Your task to perform on an android device: open app "Cash App" (install if not already installed) Image 0: 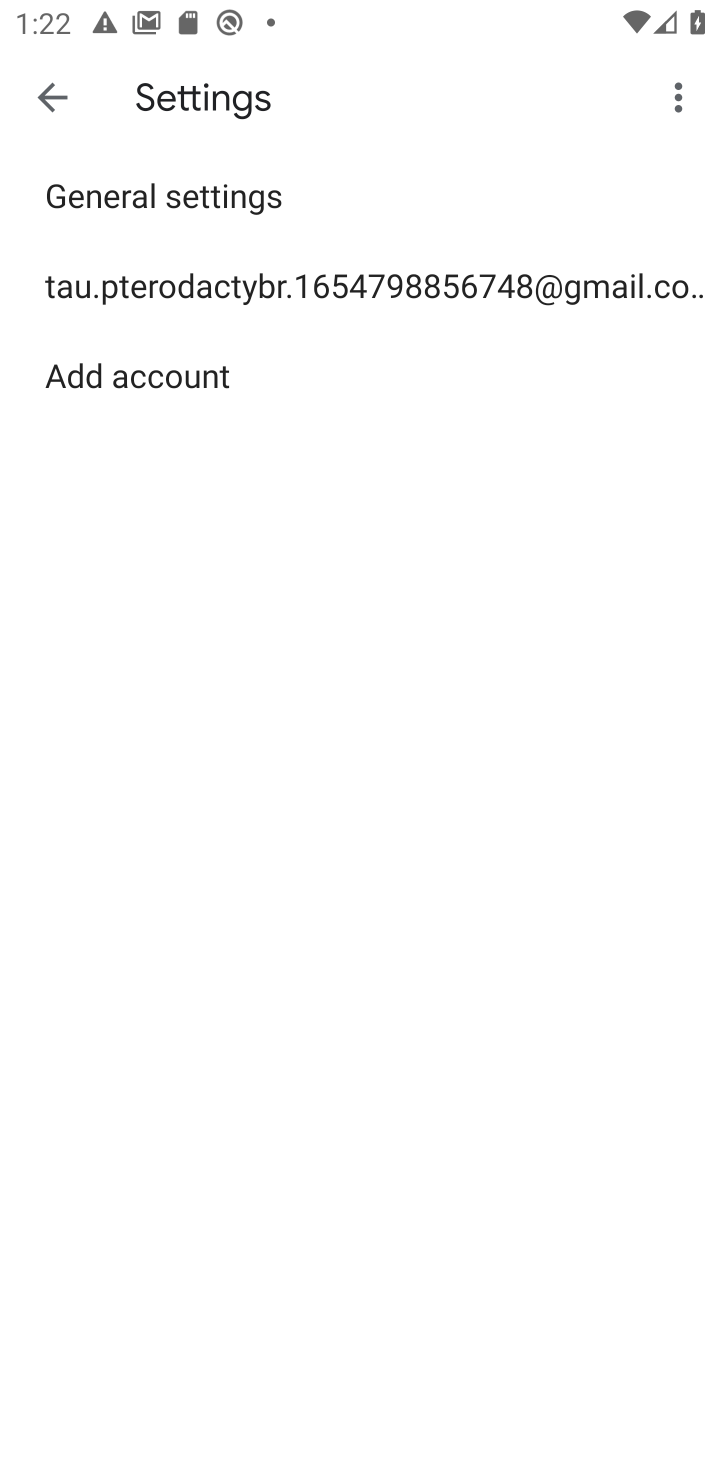
Step 0: press home button
Your task to perform on an android device: open app "Cash App" (install if not already installed) Image 1: 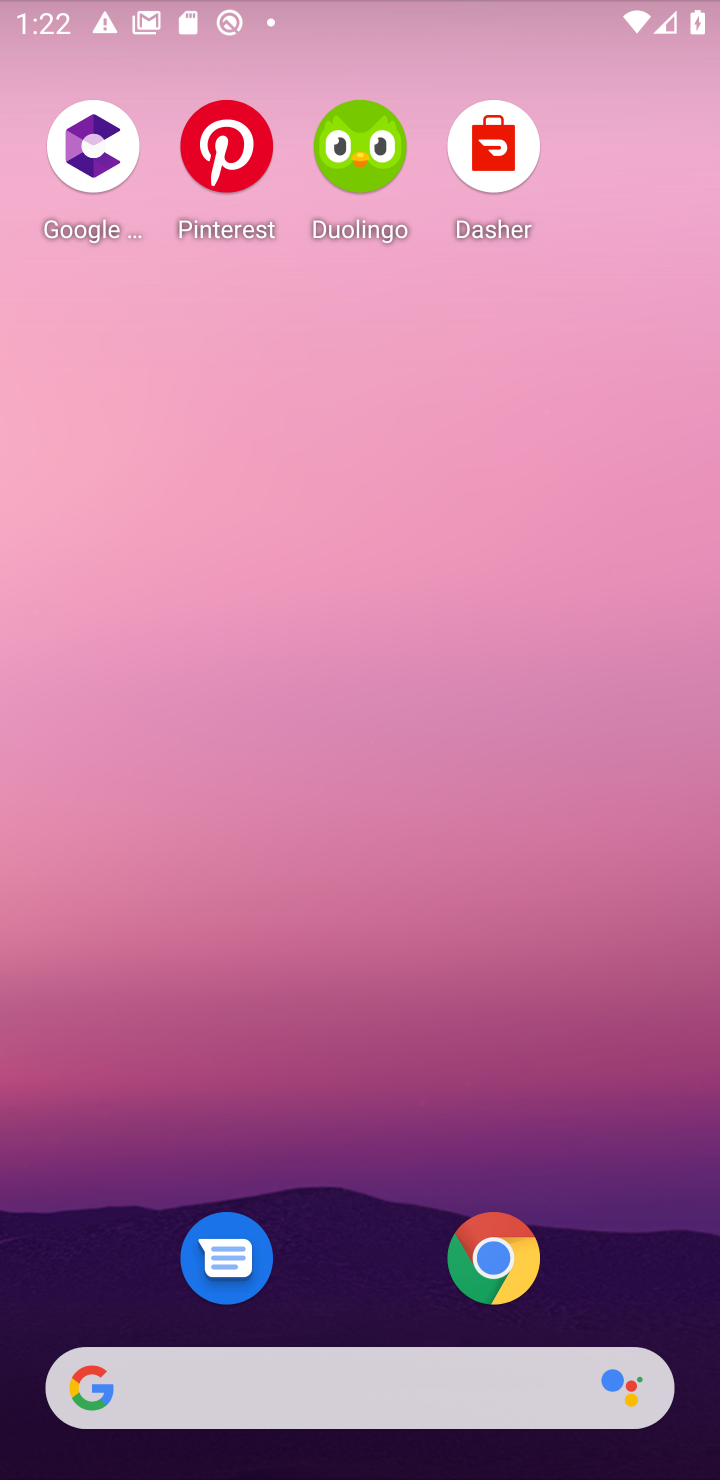
Step 1: drag from (339, 953) to (421, 72)
Your task to perform on an android device: open app "Cash App" (install if not already installed) Image 2: 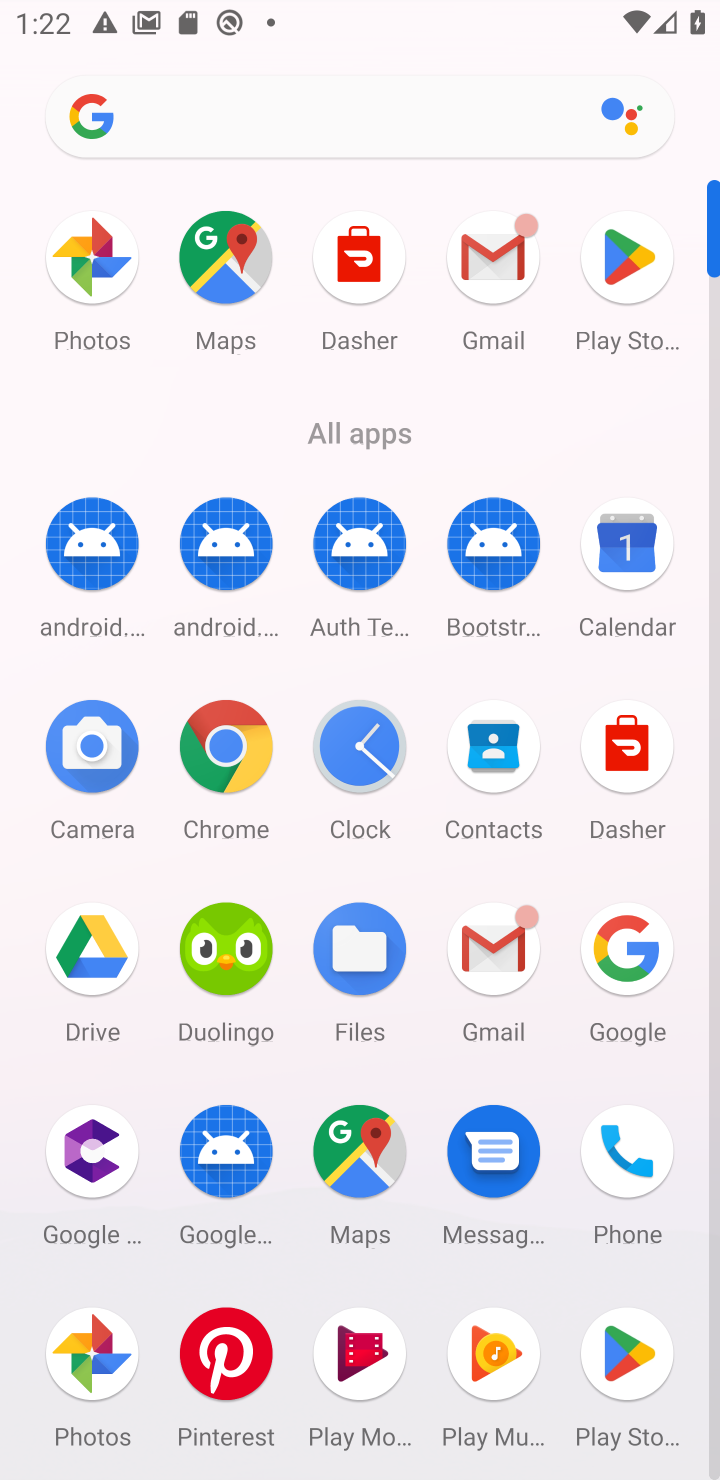
Step 2: click (638, 256)
Your task to perform on an android device: open app "Cash App" (install if not already installed) Image 3: 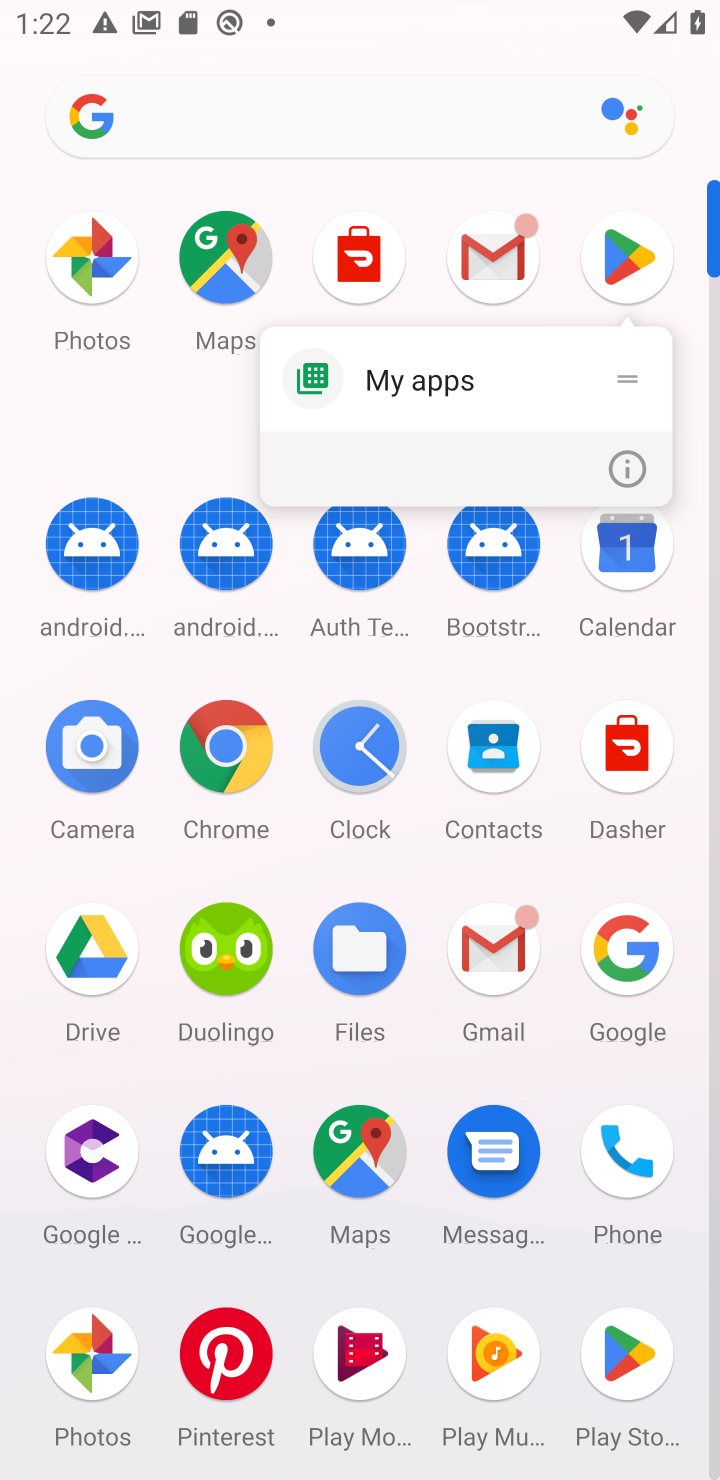
Step 3: click (630, 252)
Your task to perform on an android device: open app "Cash App" (install if not already installed) Image 4: 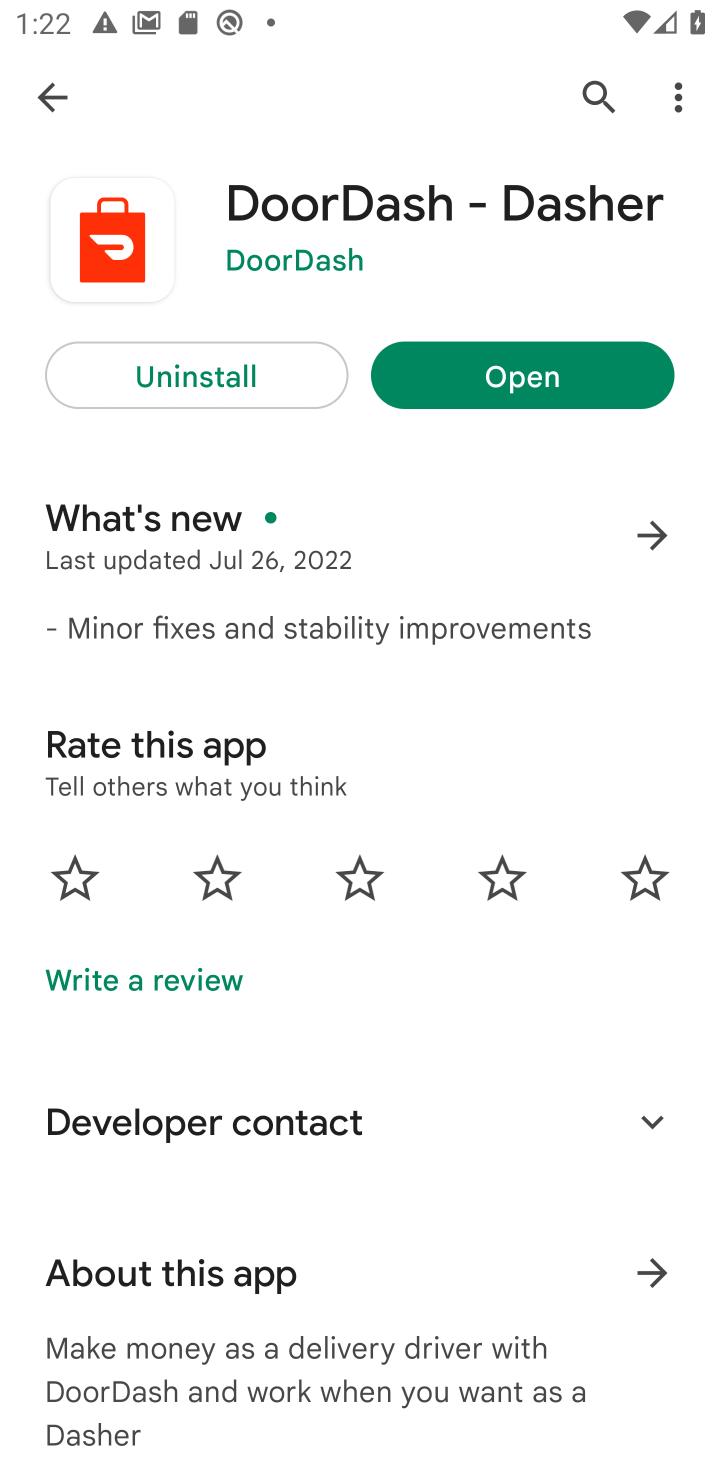
Step 4: click (635, 263)
Your task to perform on an android device: open app "Cash App" (install if not already installed) Image 5: 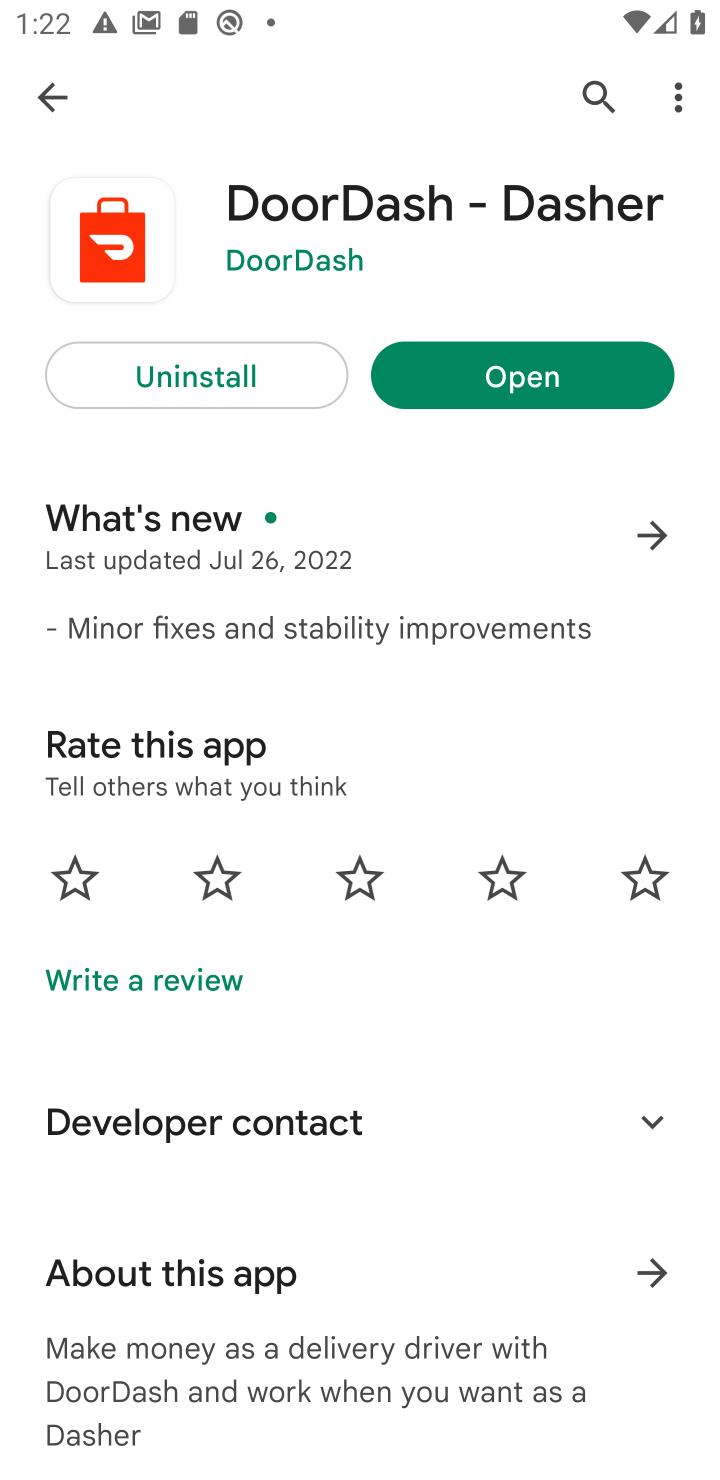
Step 5: click (597, 67)
Your task to perform on an android device: open app "Cash App" (install if not already installed) Image 6: 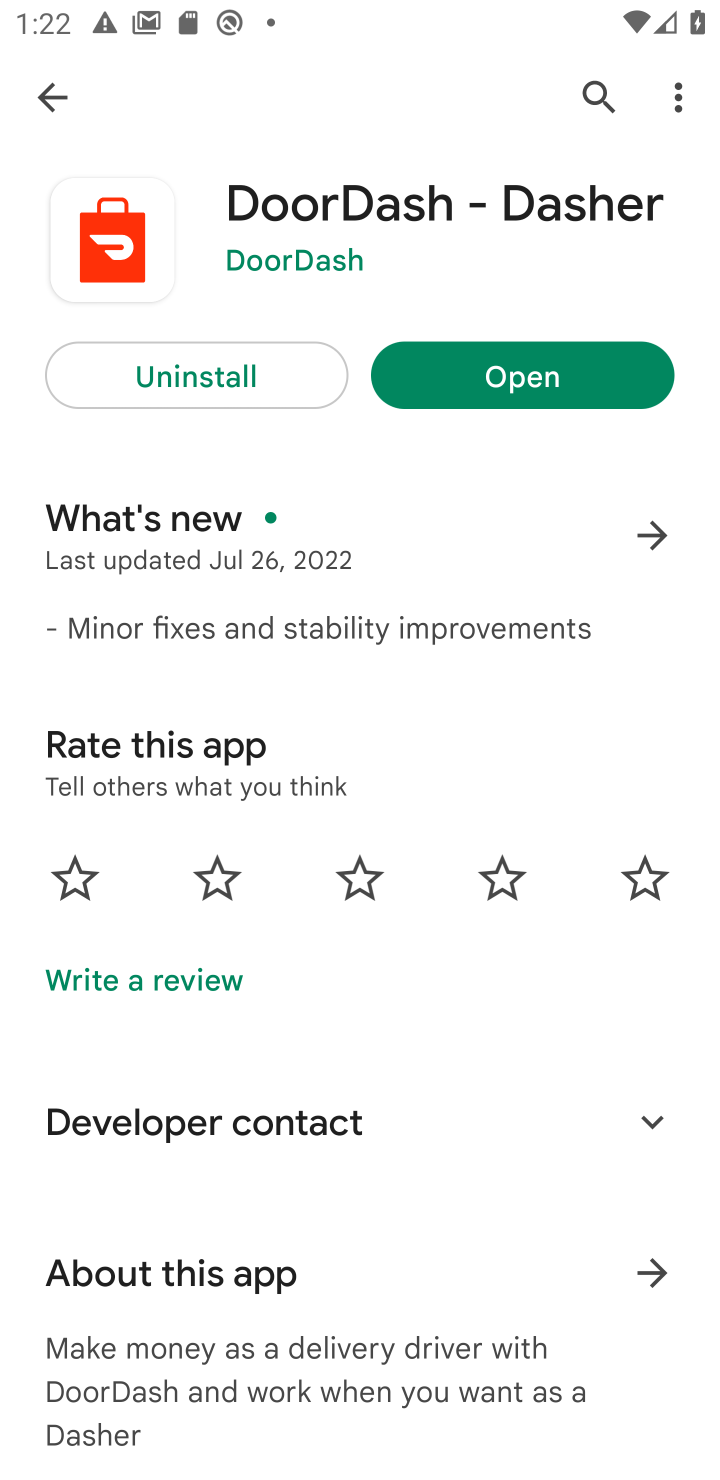
Step 6: click (597, 93)
Your task to perform on an android device: open app "Cash App" (install if not already installed) Image 7: 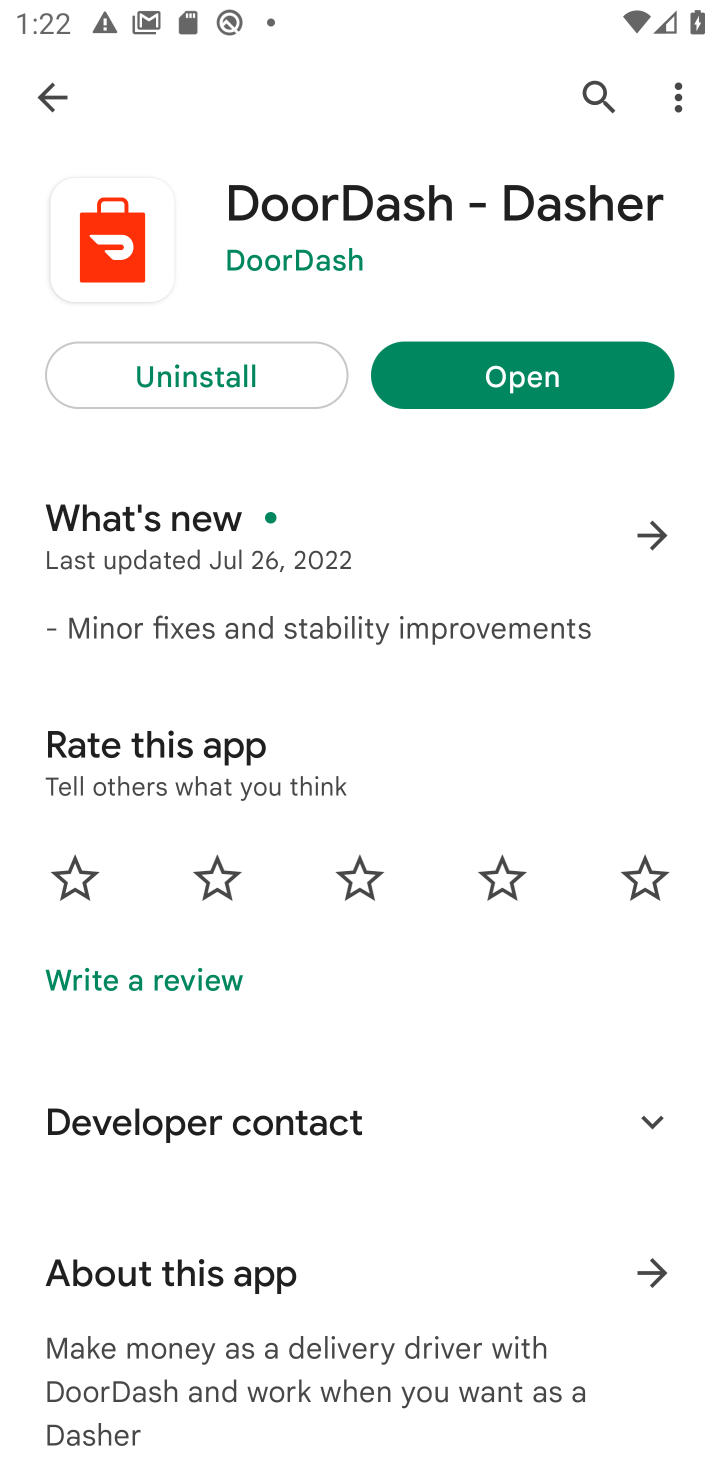
Step 7: click (598, 96)
Your task to perform on an android device: open app "Cash App" (install if not already installed) Image 8: 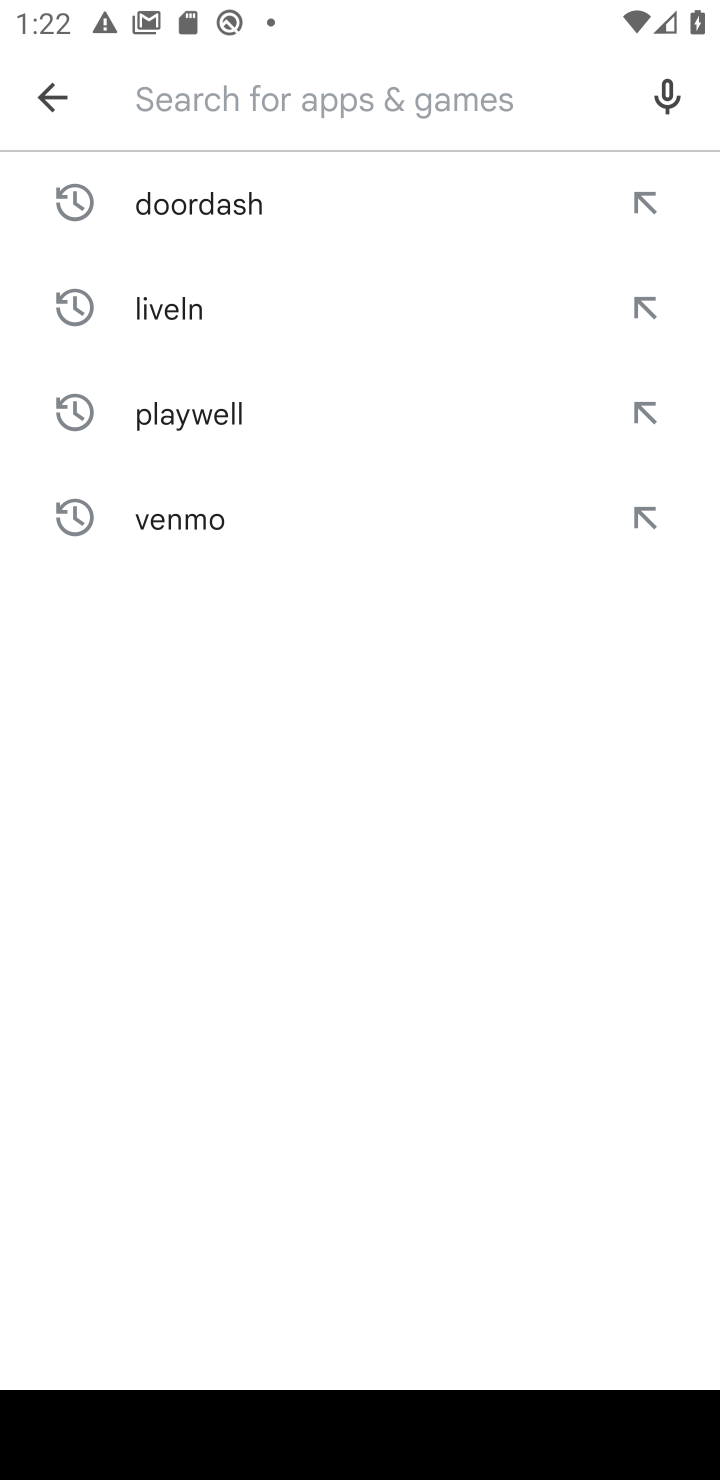
Step 8: click (351, 87)
Your task to perform on an android device: open app "Cash App" (install if not already installed) Image 9: 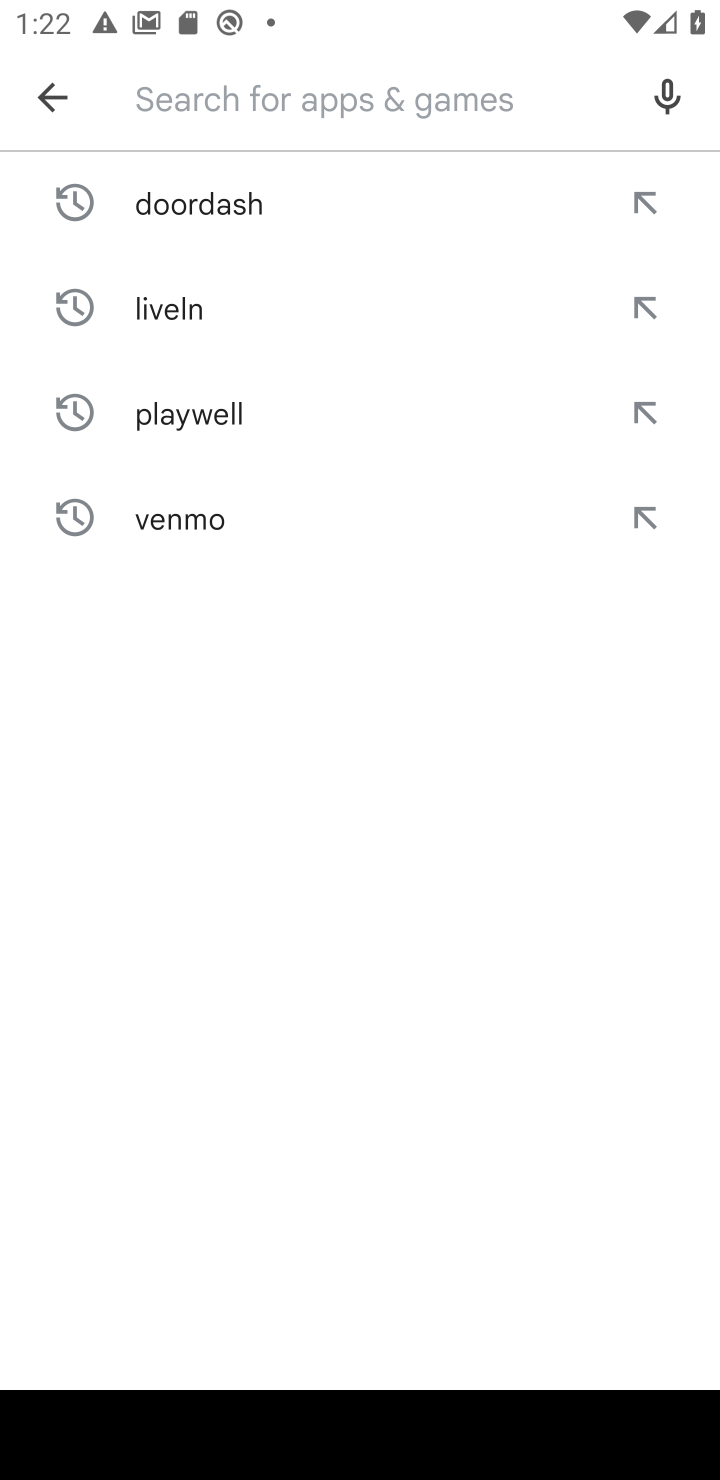
Step 9: type "cash app"
Your task to perform on an android device: open app "Cash App" (install if not already installed) Image 10: 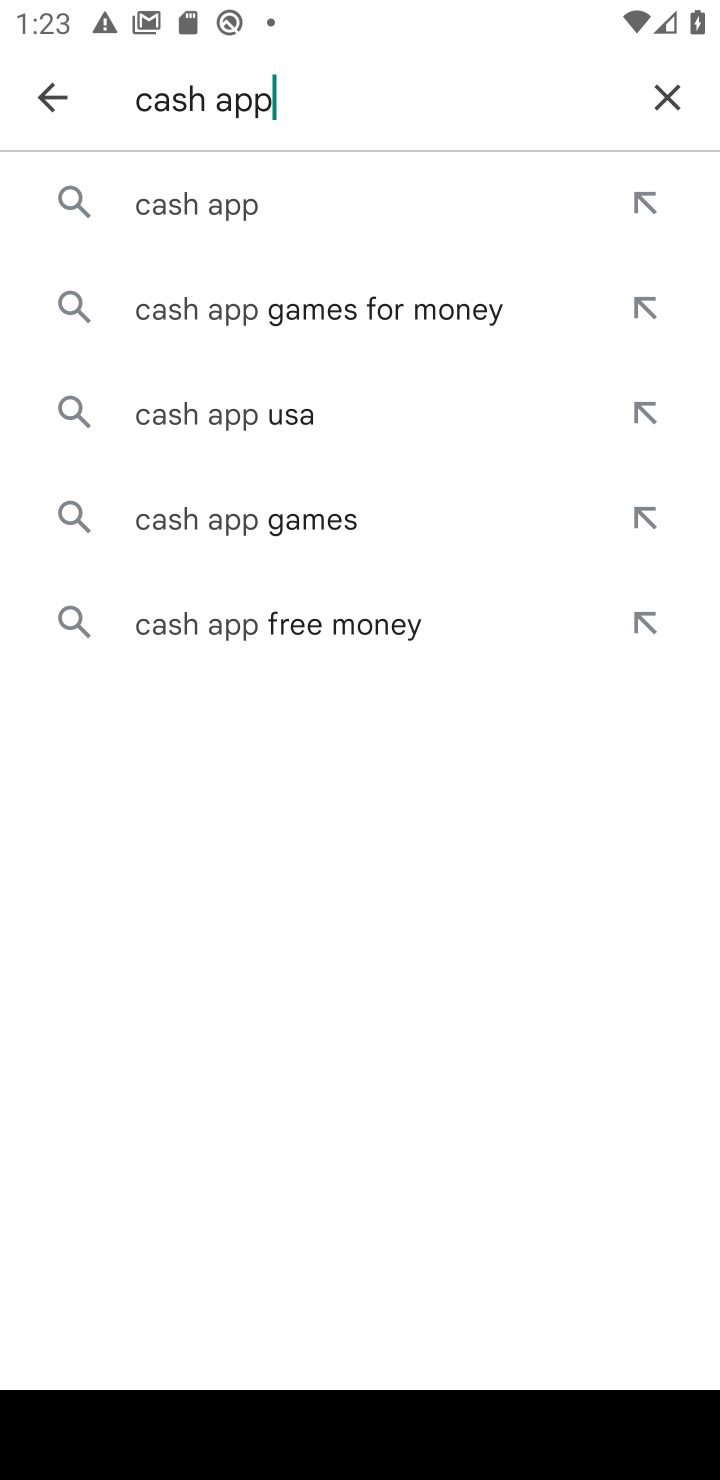
Step 10: click (172, 171)
Your task to perform on an android device: open app "Cash App" (install if not already installed) Image 11: 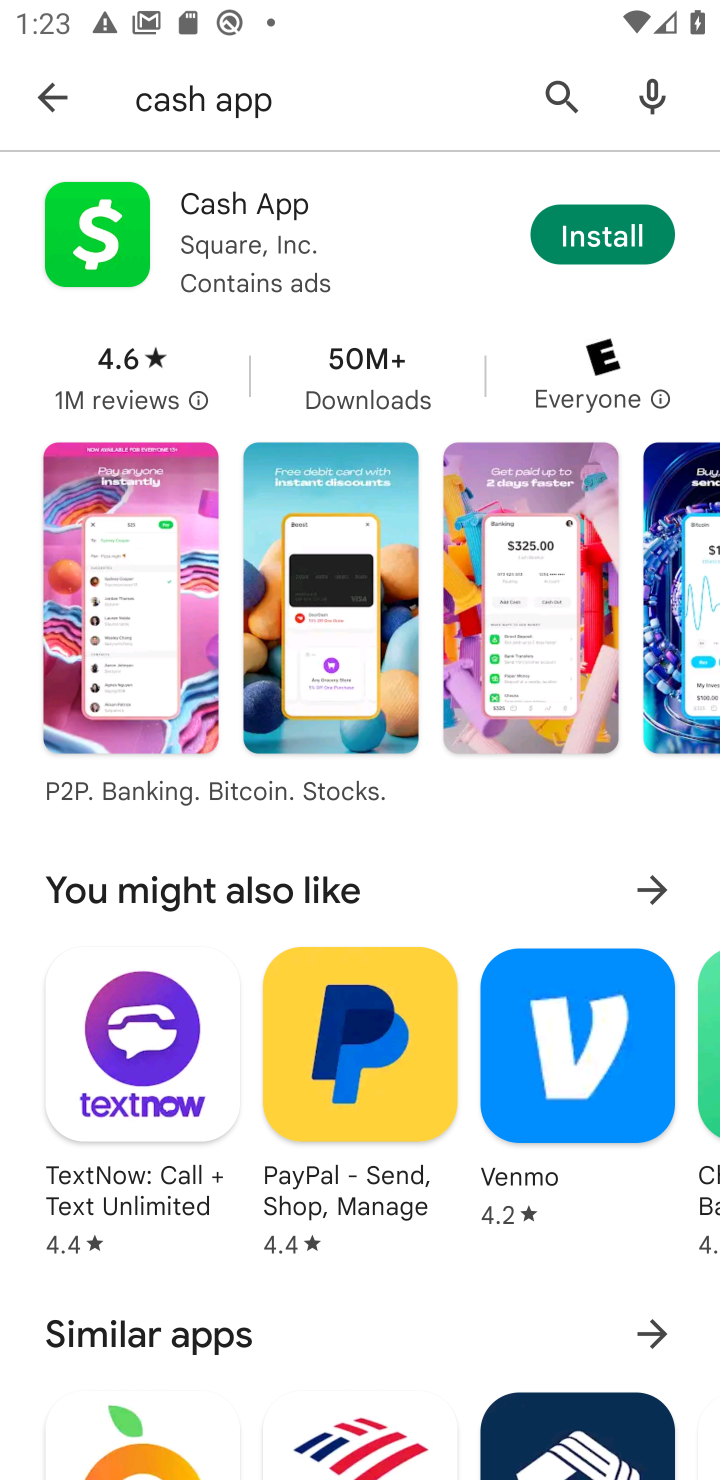
Step 11: click (634, 249)
Your task to perform on an android device: open app "Cash App" (install if not already installed) Image 12: 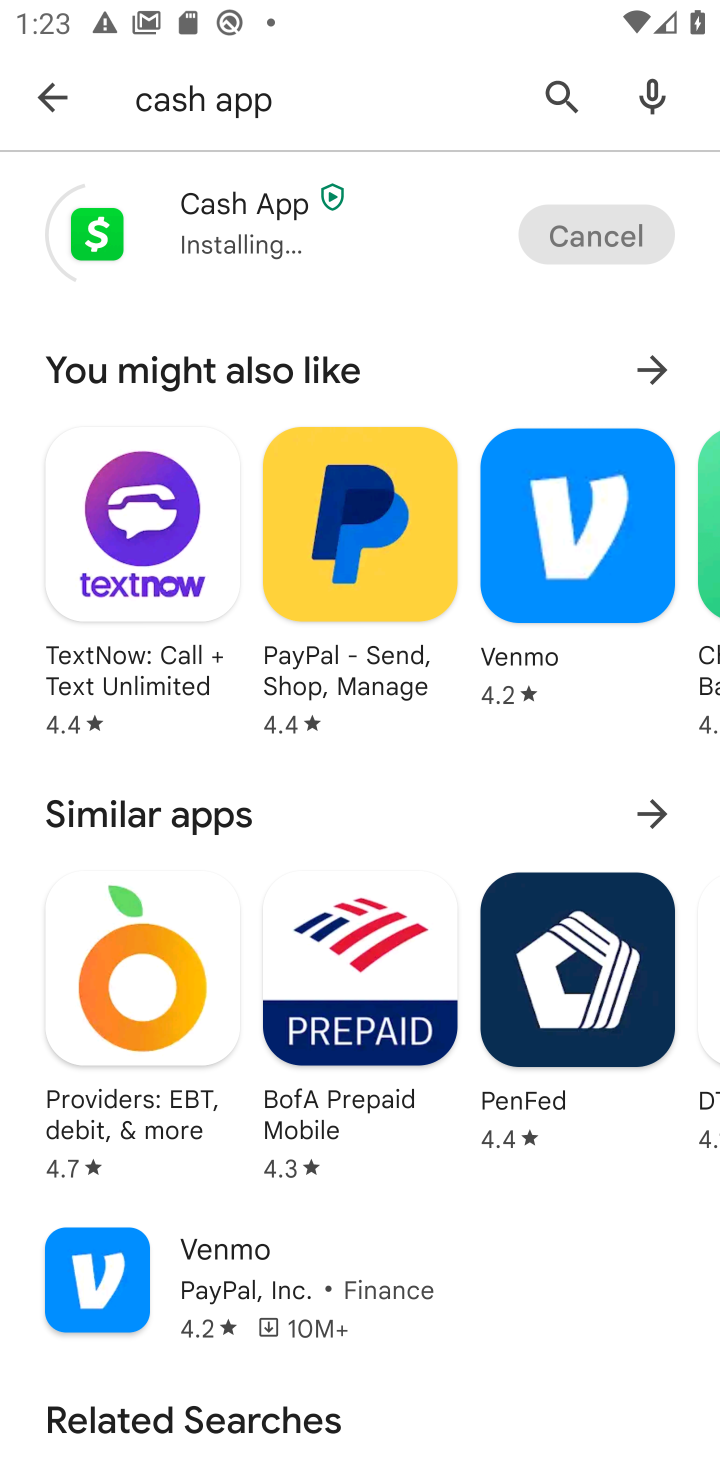
Step 12: click (29, 99)
Your task to perform on an android device: open app "Cash App" (install if not already installed) Image 13: 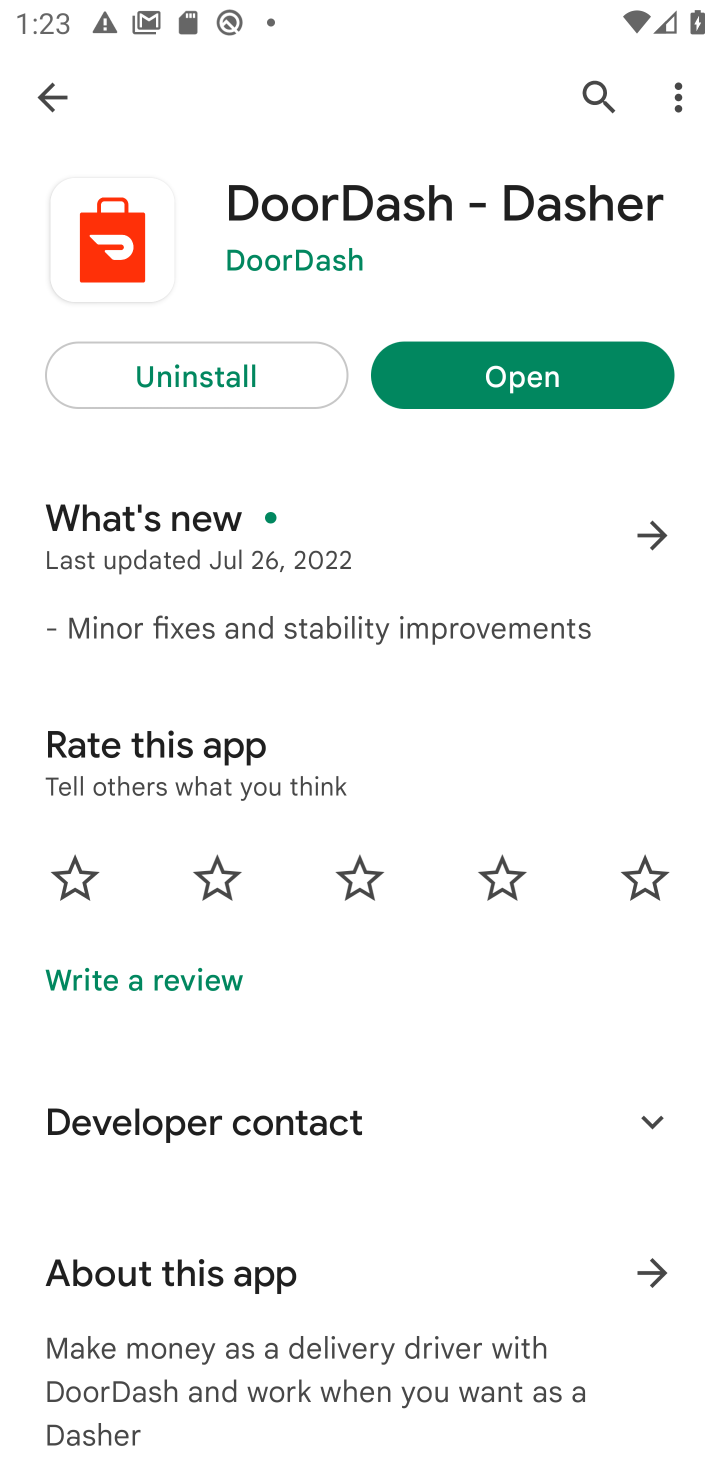
Step 13: click (584, 106)
Your task to perform on an android device: open app "Cash App" (install if not already installed) Image 14: 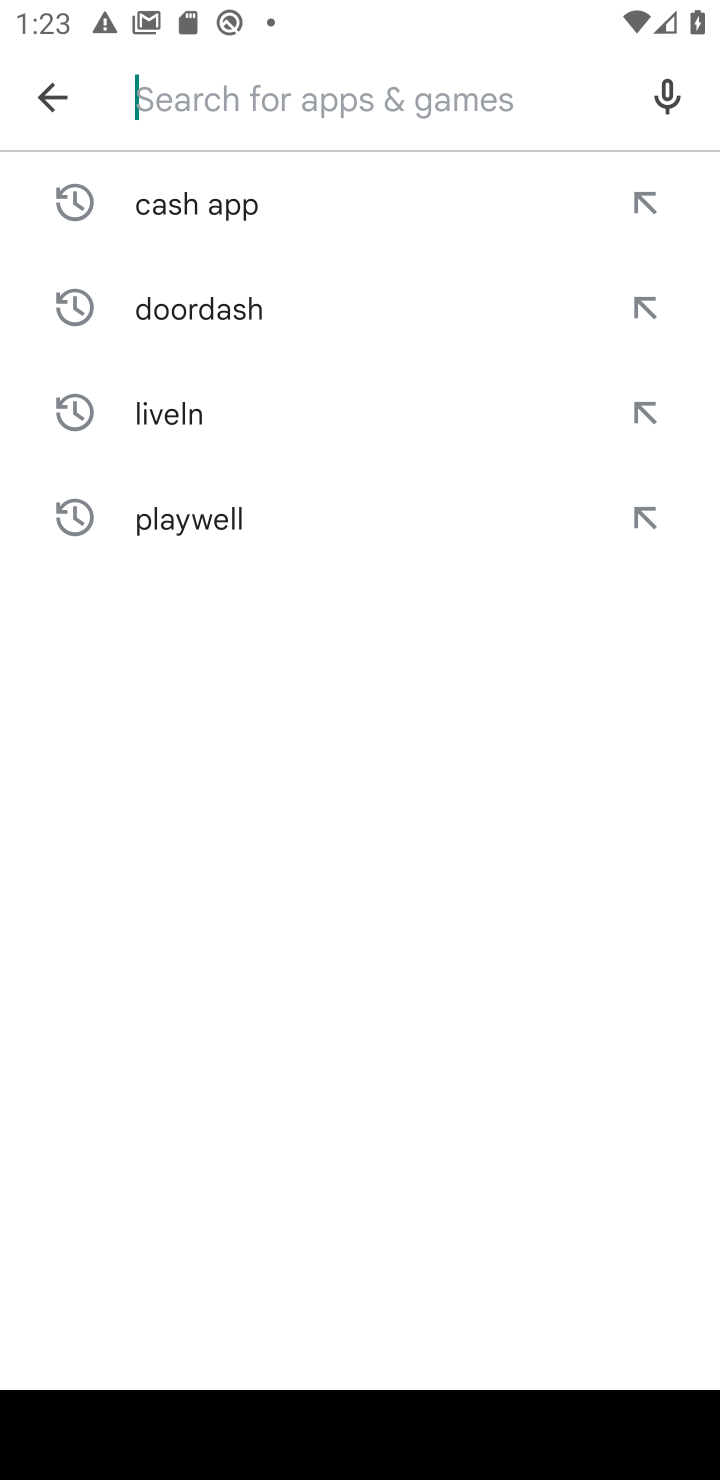
Step 14: click (192, 218)
Your task to perform on an android device: open app "Cash App" (install if not already installed) Image 15: 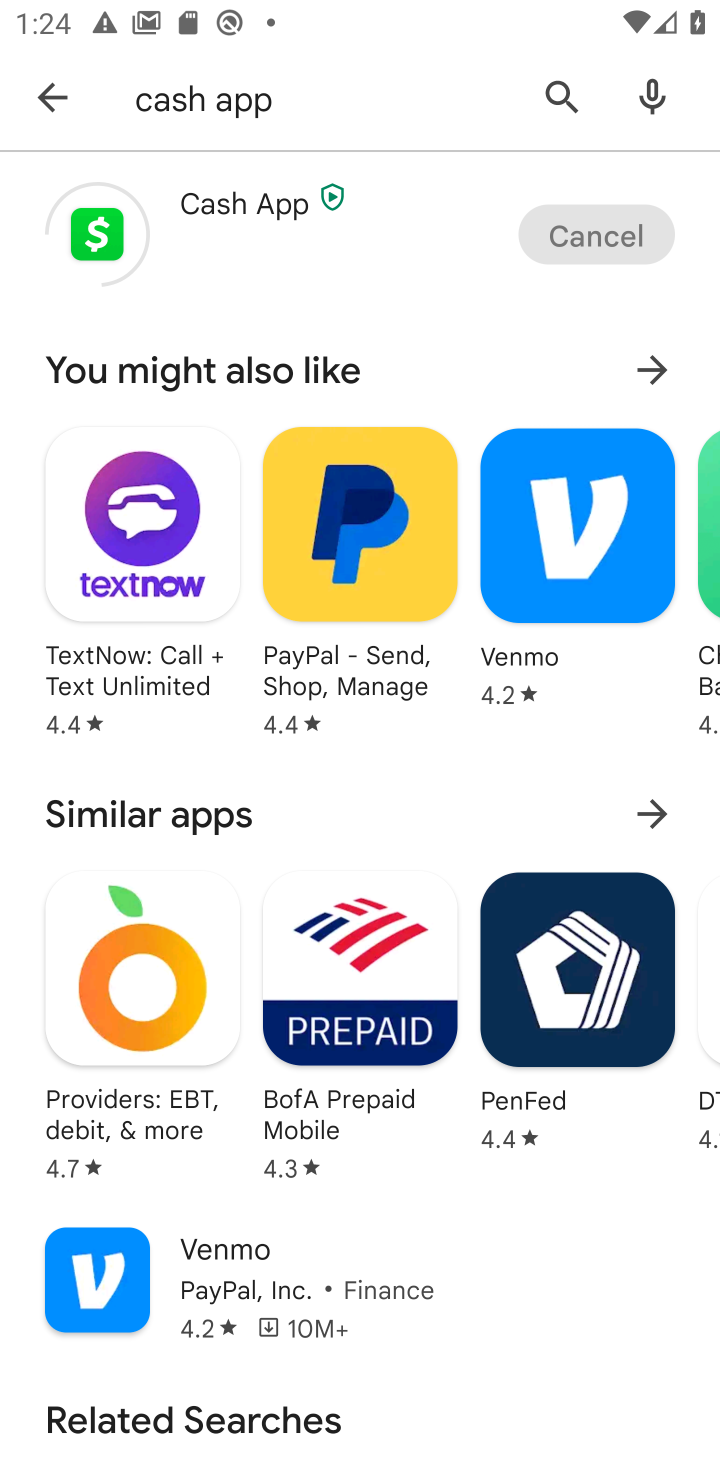
Step 15: click (209, 246)
Your task to perform on an android device: open app "Cash App" (install if not already installed) Image 16: 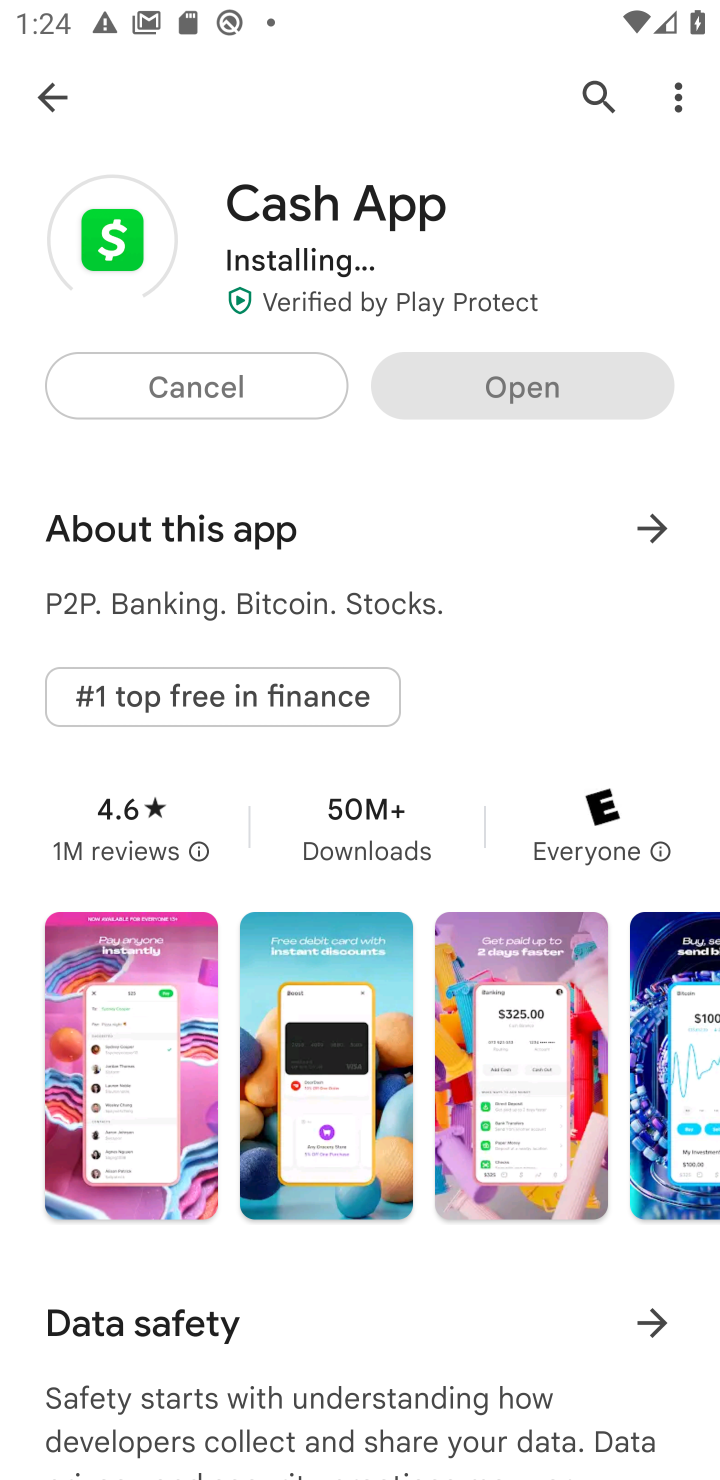
Step 16: click (61, 81)
Your task to perform on an android device: open app "Cash App" (install if not already installed) Image 17: 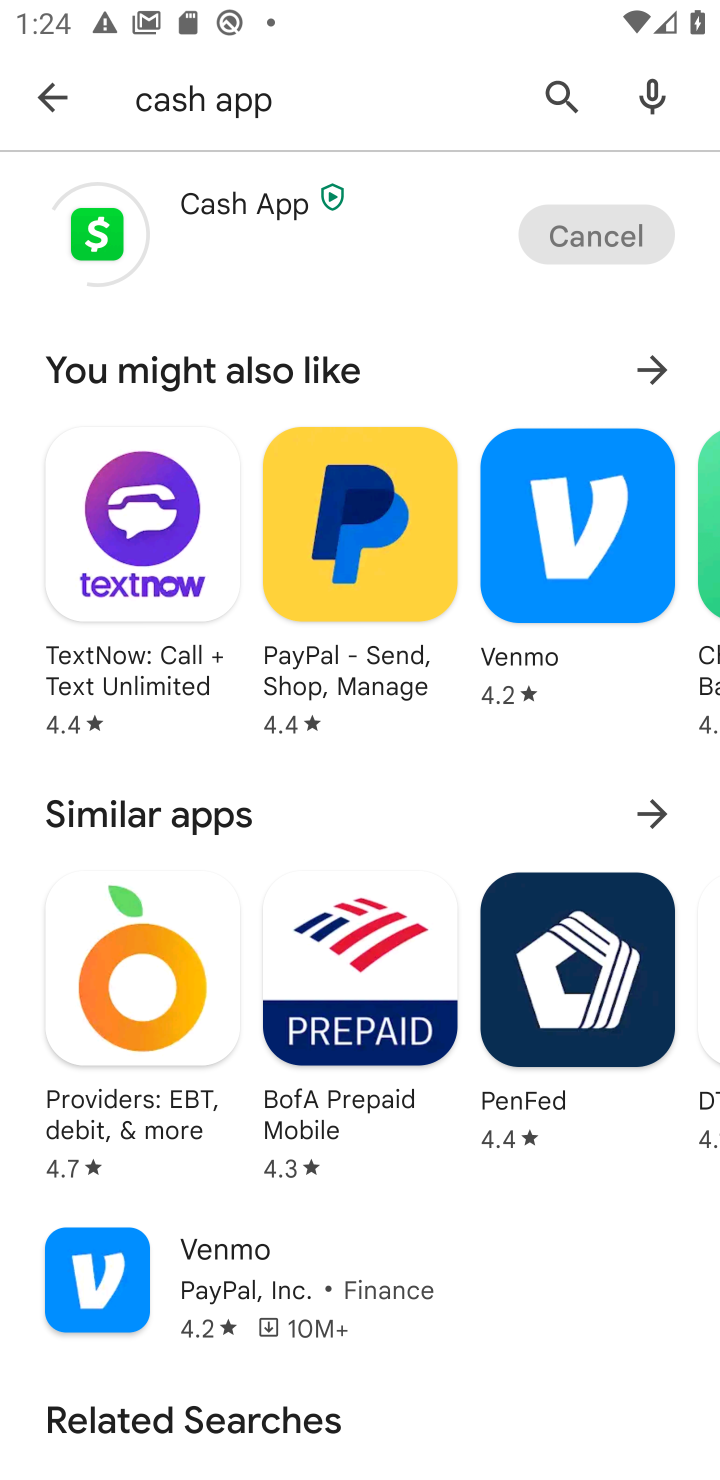
Step 17: click (288, 206)
Your task to perform on an android device: open app "Cash App" (install if not already installed) Image 18: 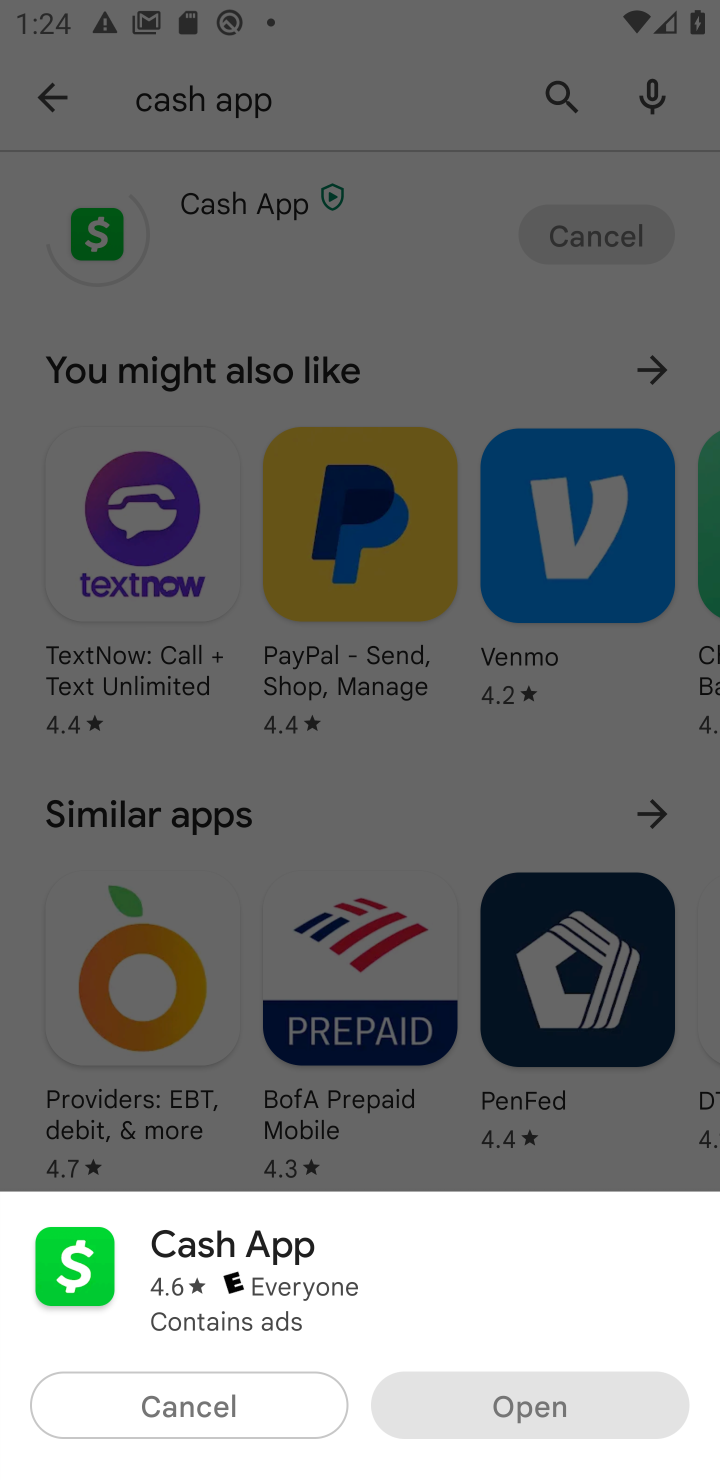
Step 18: click (220, 277)
Your task to perform on an android device: open app "Cash App" (install if not already installed) Image 19: 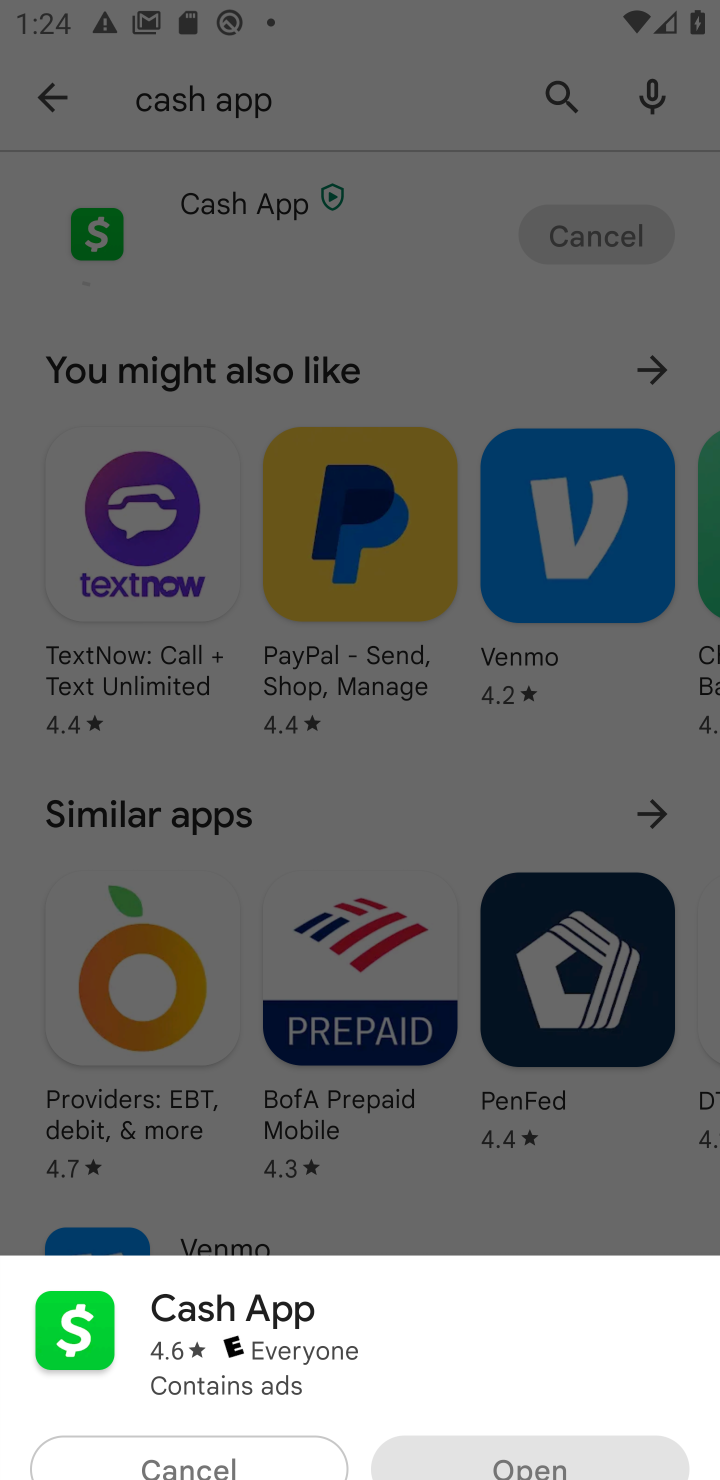
Step 19: click (86, 219)
Your task to perform on an android device: open app "Cash App" (install if not already installed) Image 20: 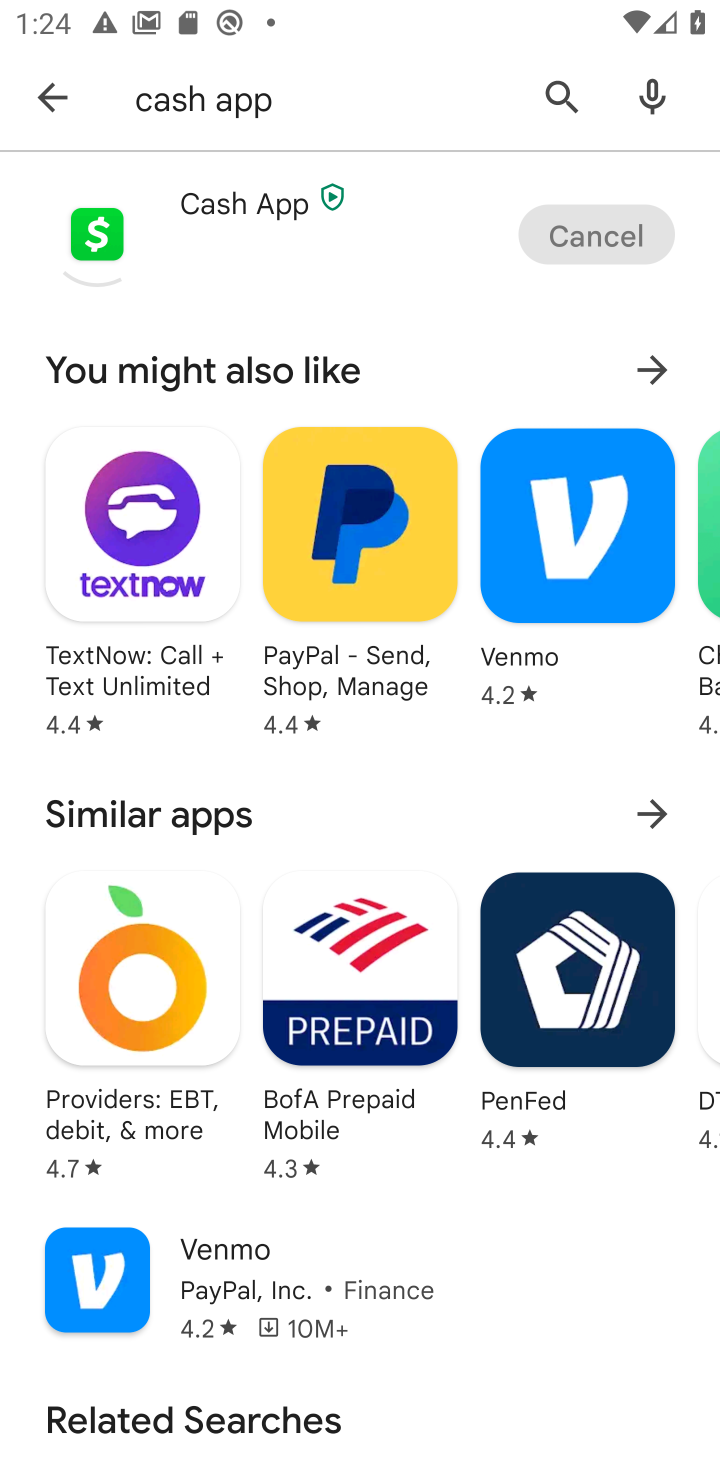
Step 20: click (238, 218)
Your task to perform on an android device: open app "Cash App" (install if not already installed) Image 21: 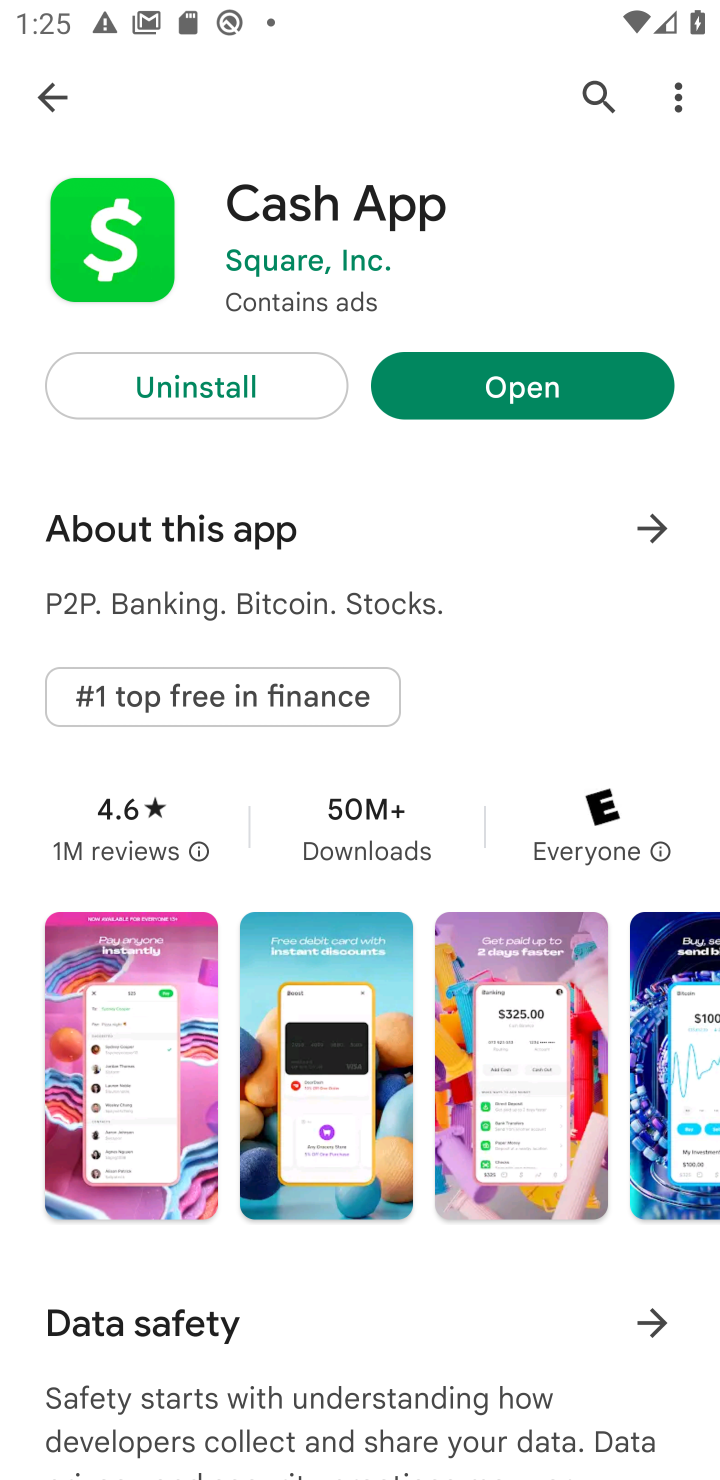
Step 21: click (538, 392)
Your task to perform on an android device: open app "Cash App" (install if not already installed) Image 22: 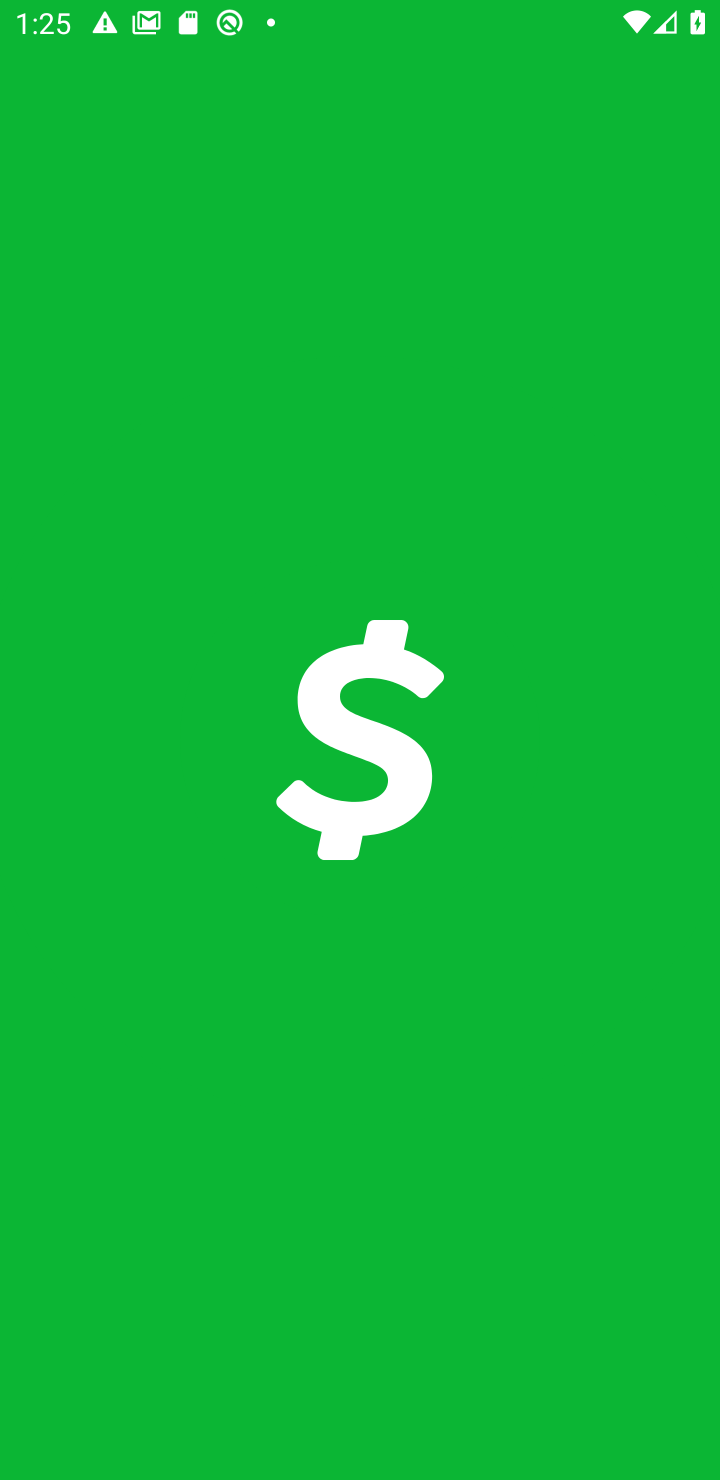
Step 22: task complete